Your task to perform on an android device: change notification settings in the gmail app Image 0: 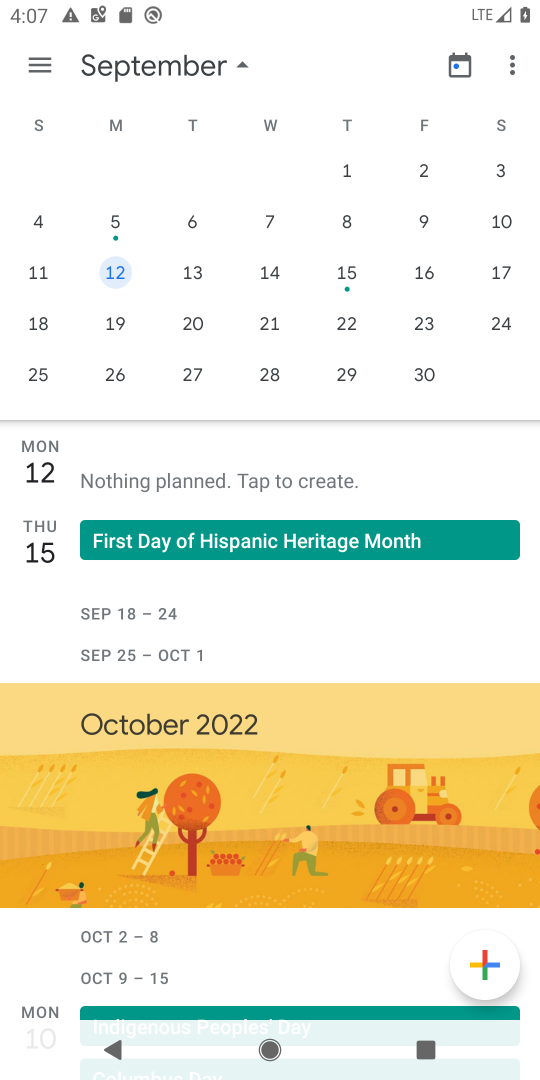
Step 0: press back button
Your task to perform on an android device: change notification settings in the gmail app Image 1: 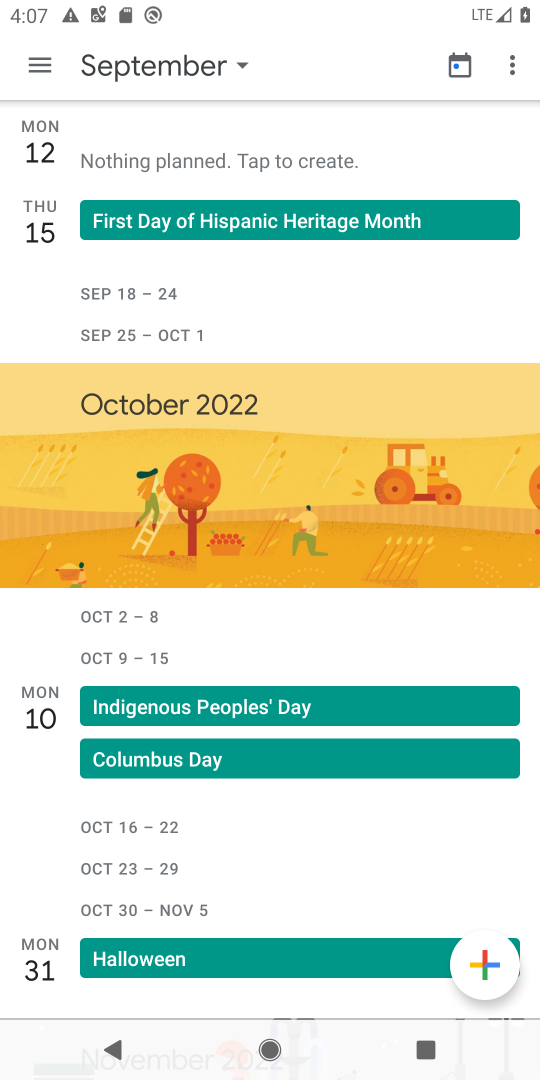
Step 1: press back button
Your task to perform on an android device: change notification settings in the gmail app Image 2: 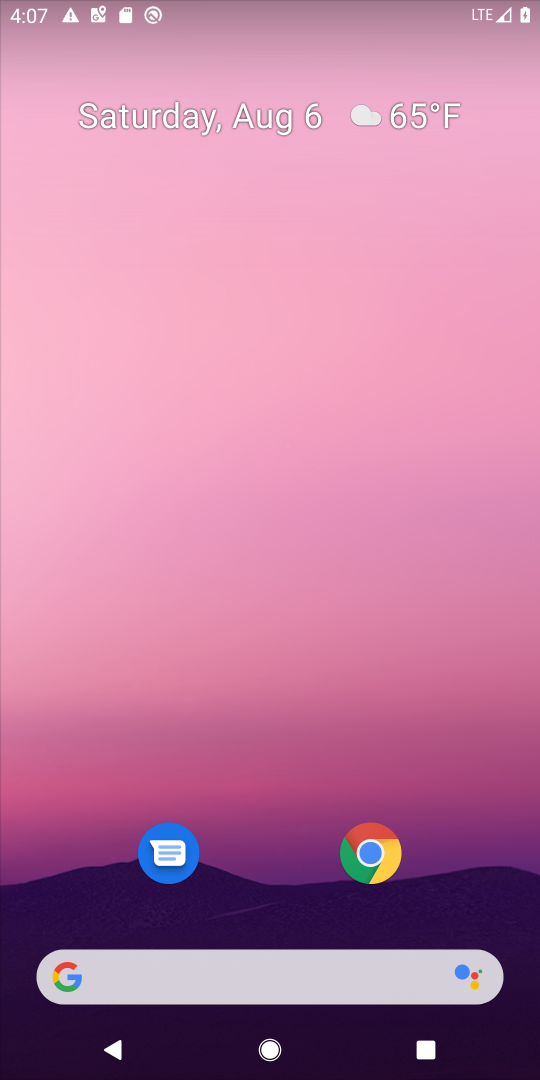
Step 2: drag from (272, 899) to (272, 133)
Your task to perform on an android device: change notification settings in the gmail app Image 3: 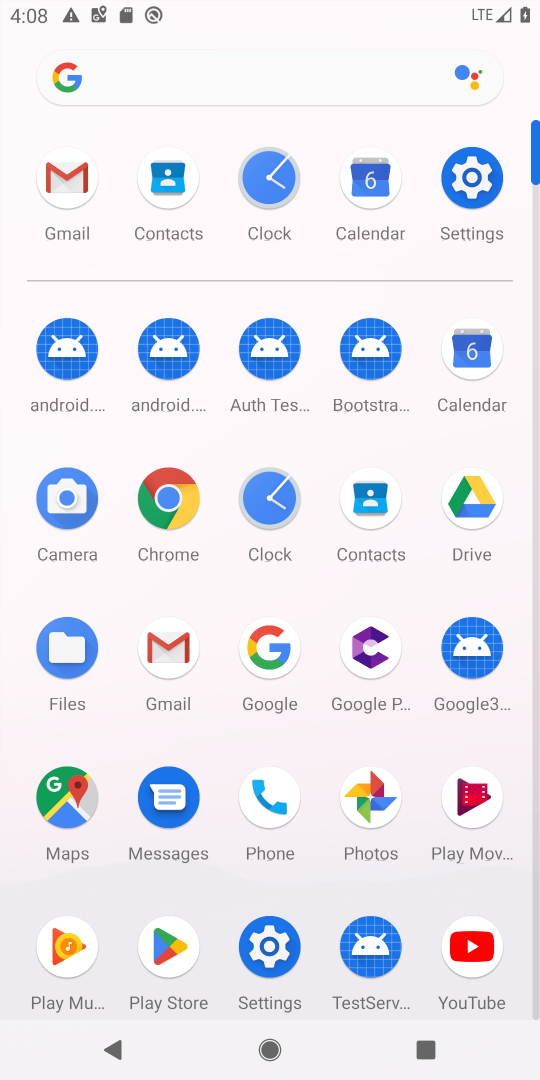
Step 3: click (68, 180)
Your task to perform on an android device: change notification settings in the gmail app Image 4: 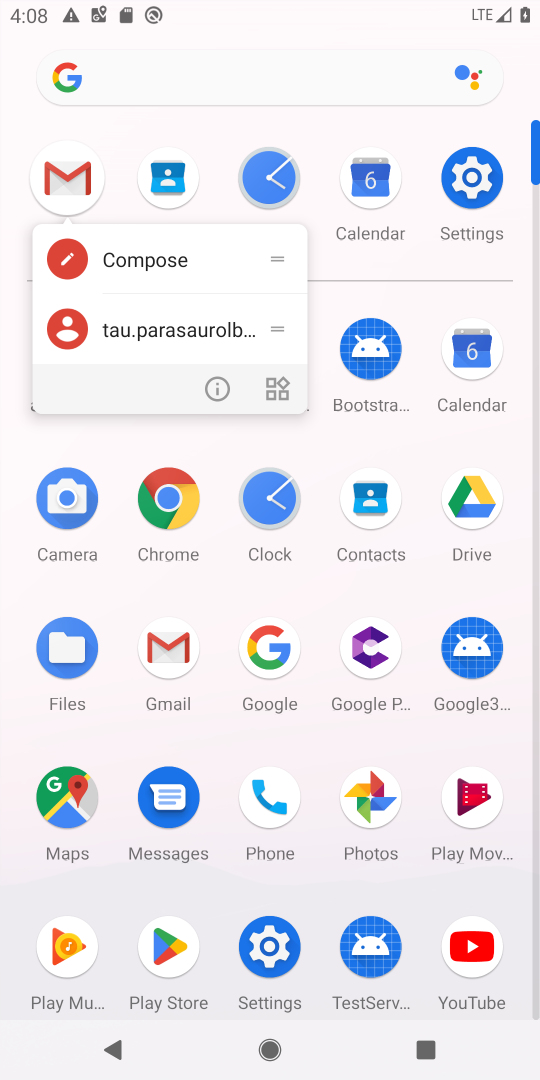
Step 4: click (211, 394)
Your task to perform on an android device: change notification settings in the gmail app Image 5: 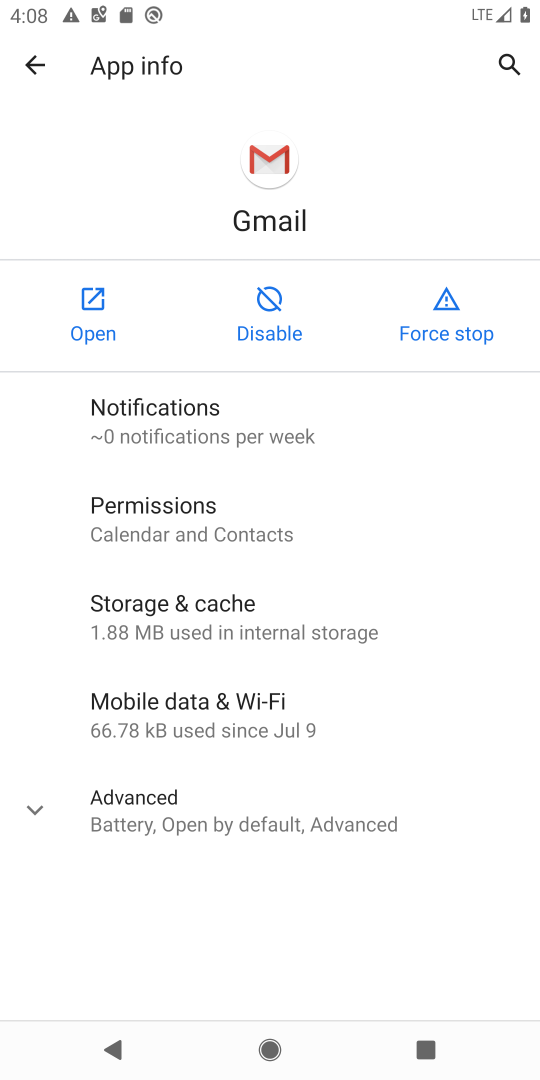
Step 5: click (237, 417)
Your task to perform on an android device: change notification settings in the gmail app Image 6: 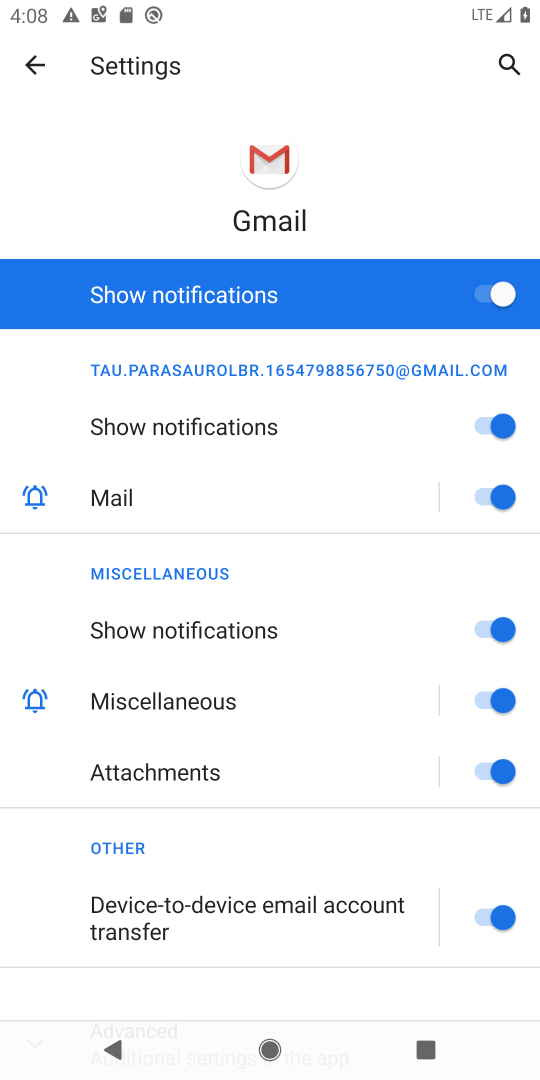
Step 6: click (495, 423)
Your task to perform on an android device: change notification settings in the gmail app Image 7: 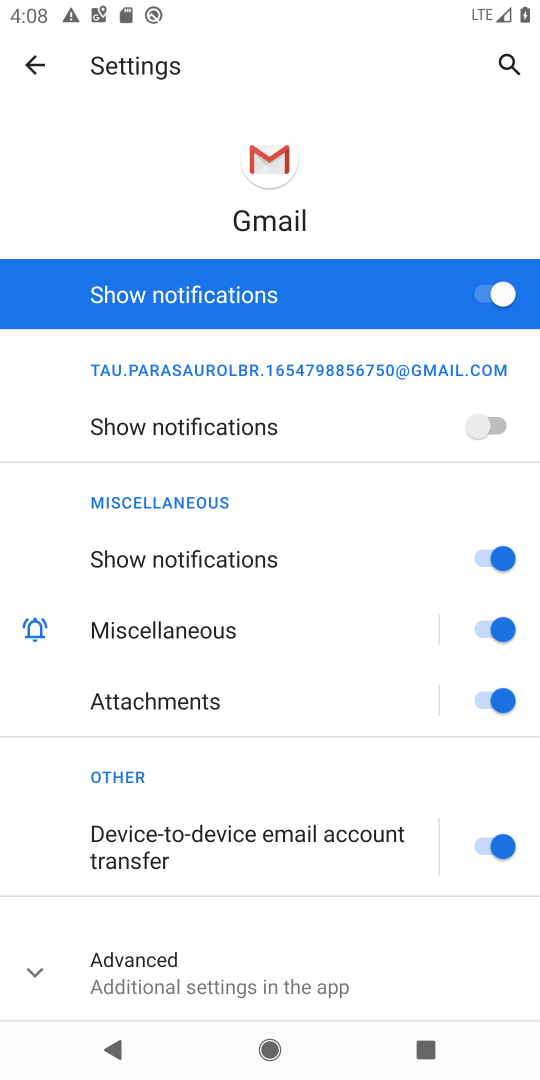
Step 7: task complete